Your task to perform on an android device: Go to network settings Image 0: 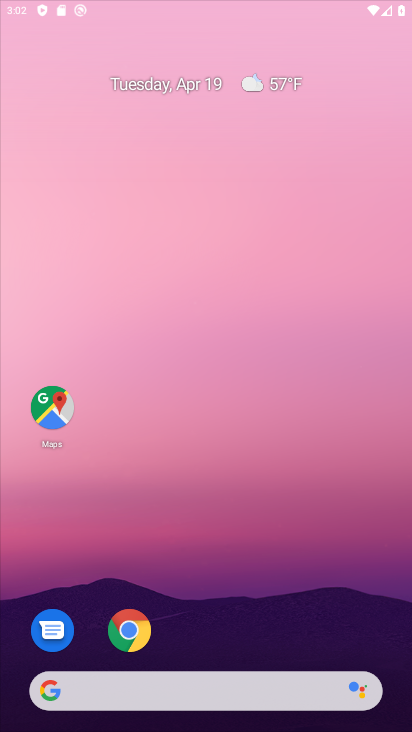
Step 0: click (128, 617)
Your task to perform on an android device: Go to network settings Image 1: 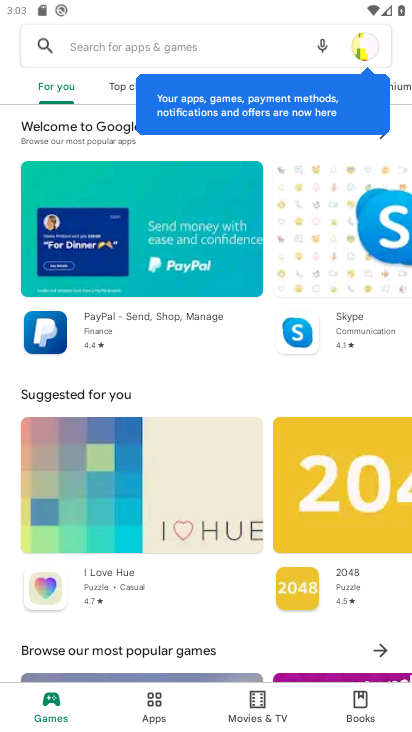
Step 1: press home button
Your task to perform on an android device: Go to network settings Image 2: 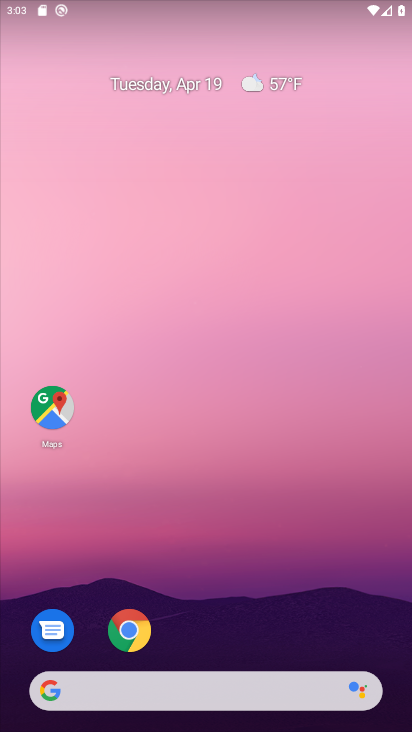
Step 2: drag from (223, 487) to (217, 279)
Your task to perform on an android device: Go to network settings Image 3: 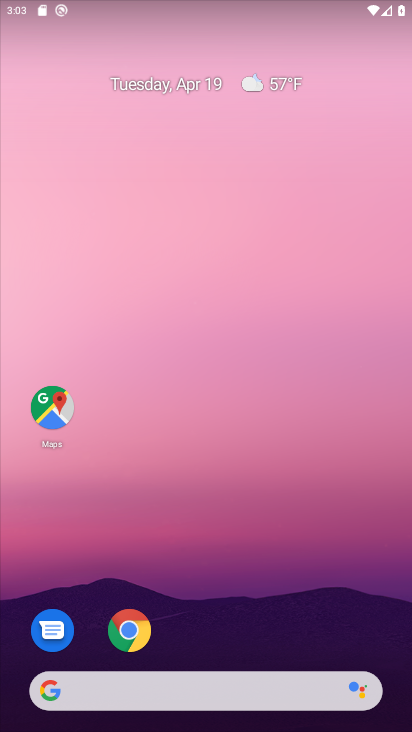
Step 3: drag from (237, 620) to (242, 166)
Your task to perform on an android device: Go to network settings Image 4: 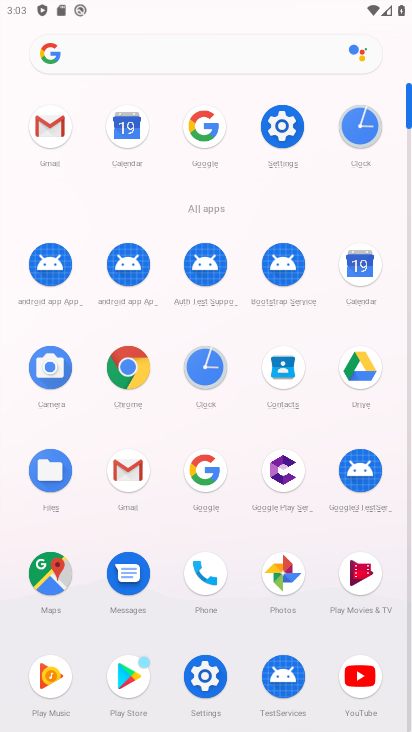
Step 4: click (276, 128)
Your task to perform on an android device: Go to network settings Image 5: 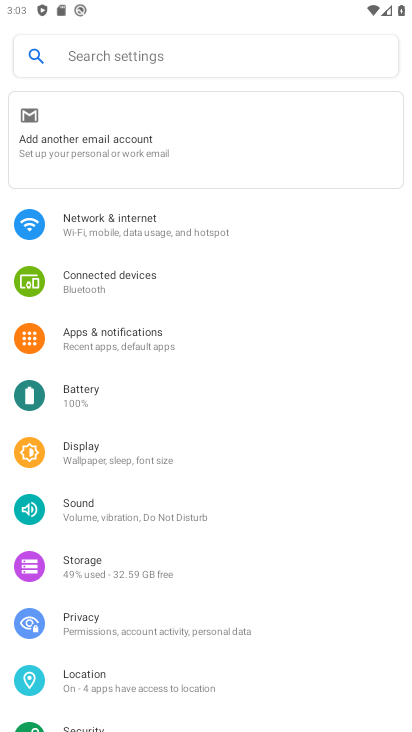
Step 5: click (137, 236)
Your task to perform on an android device: Go to network settings Image 6: 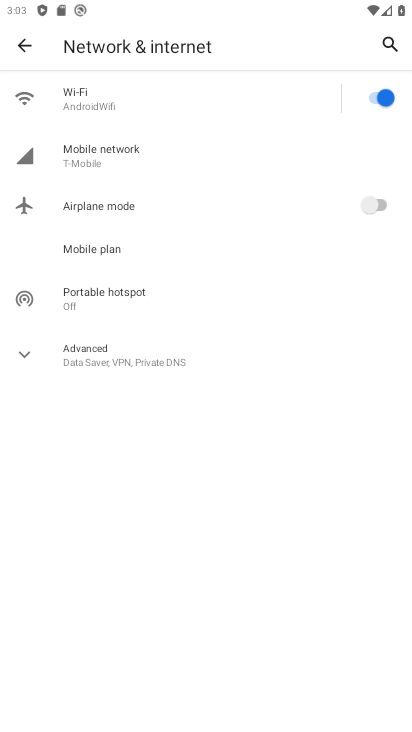
Step 6: click (123, 339)
Your task to perform on an android device: Go to network settings Image 7: 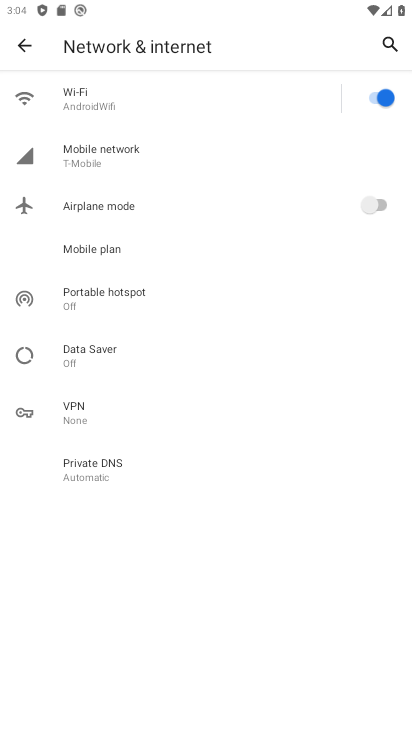
Step 7: task complete